Your task to perform on an android device: turn on data saver in the chrome app Image 0: 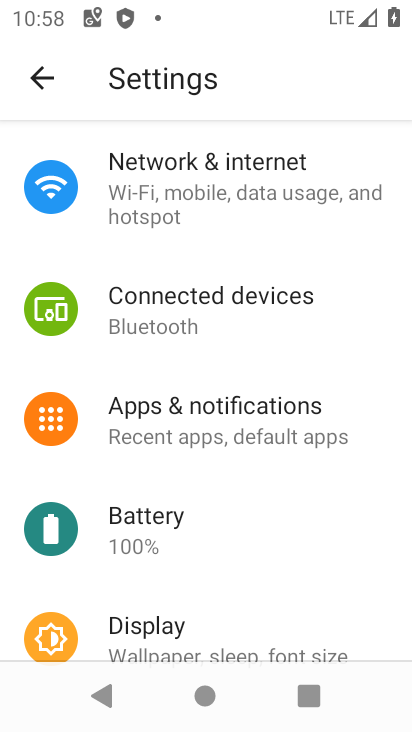
Step 0: press back button
Your task to perform on an android device: turn on data saver in the chrome app Image 1: 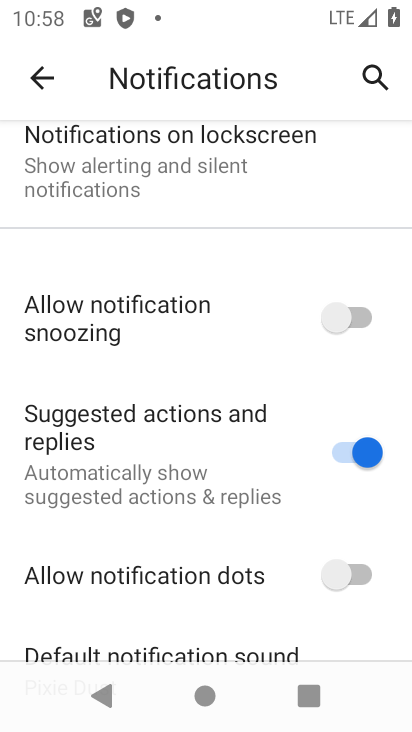
Step 1: press back button
Your task to perform on an android device: turn on data saver in the chrome app Image 2: 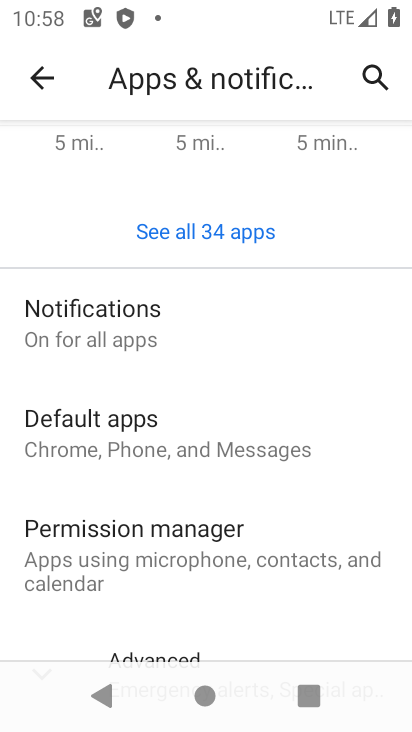
Step 2: press back button
Your task to perform on an android device: turn on data saver in the chrome app Image 3: 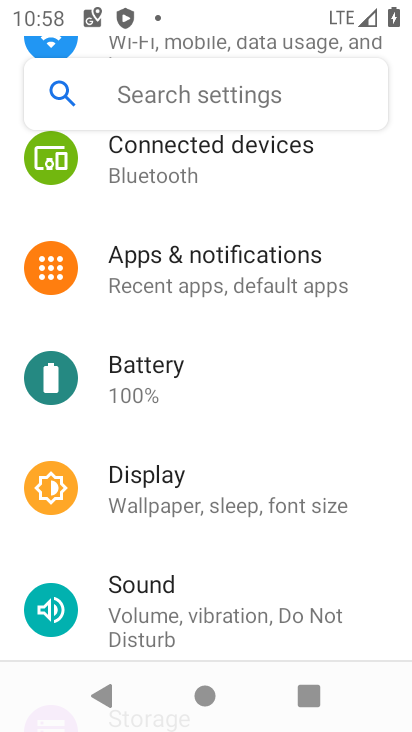
Step 3: press back button
Your task to perform on an android device: turn on data saver in the chrome app Image 4: 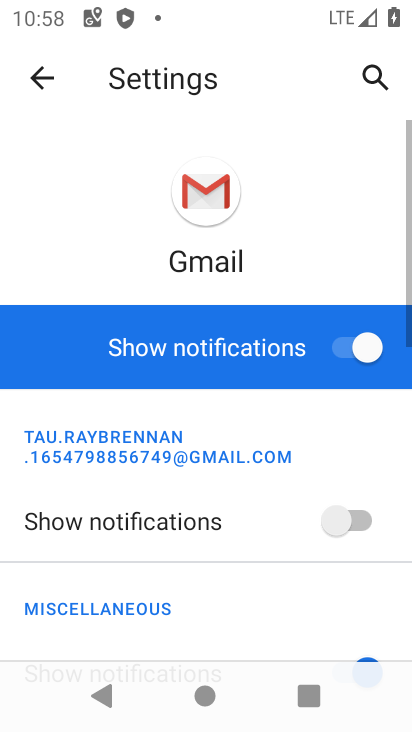
Step 4: press back button
Your task to perform on an android device: turn on data saver in the chrome app Image 5: 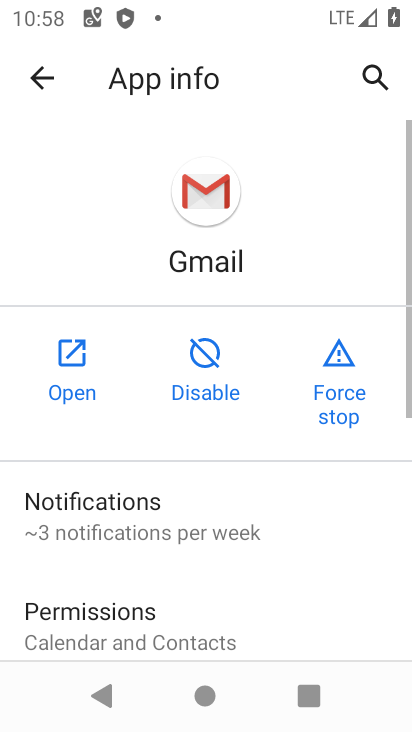
Step 5: press back button
Your task to perform on an android device: turn on data saver in the chrome app Image 6: 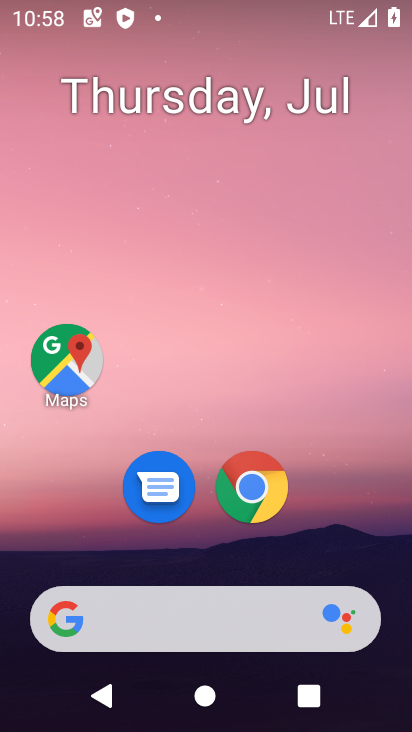
Step 6: click (263, 499)
Your task to perform on an android device: turn on data saver in the chrome app Image 7: 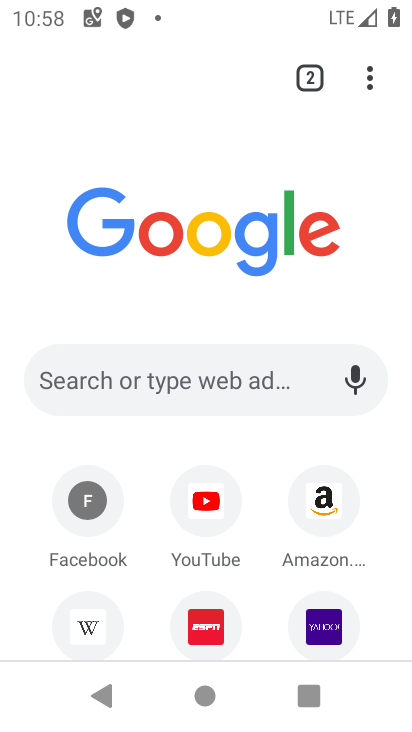
Step 7: click (373, 85)
Your task to perform on an android device: turn on data saver in the chrome app Image 8: 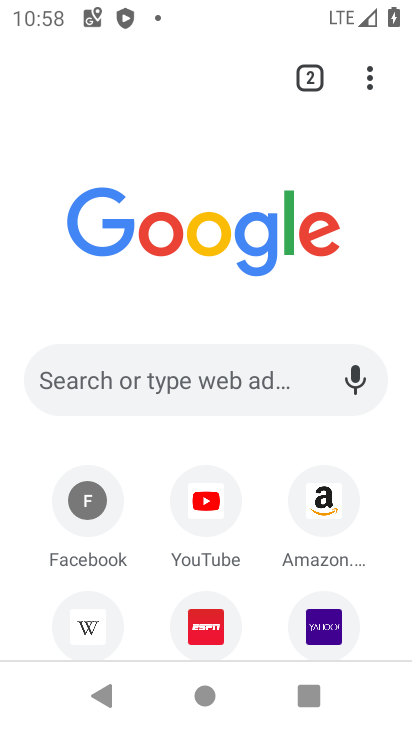
Step 8: drag from (366, 73) to (126, 557)
Your task to perform on an android device: turn on data saver in the chrome app Image 9: 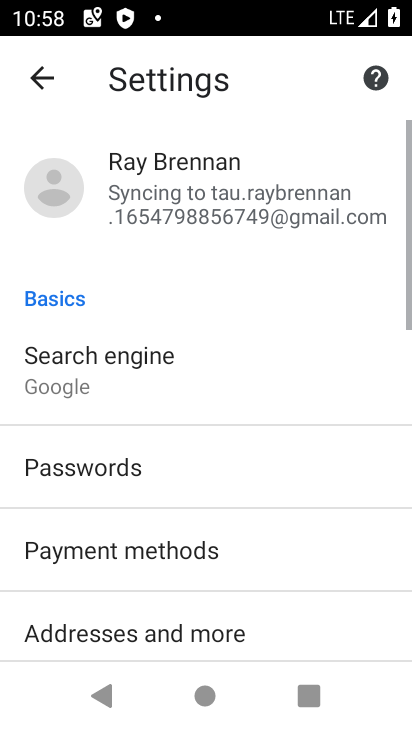
Step 9: drag from (148, 645) to (242, 140)
Your task to perform on an android device: turn on data saver in the chrome app Image 10: 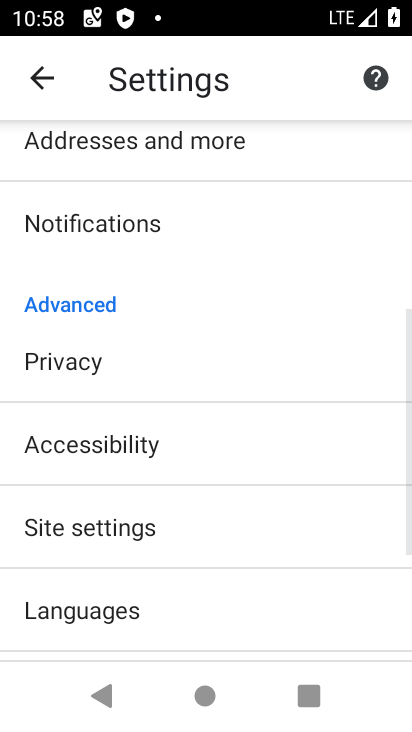
Step 10: drag from (164, 639) to (272, 95)
Your task to perform on an android device: turn on data saver in the chrome app Image 11: 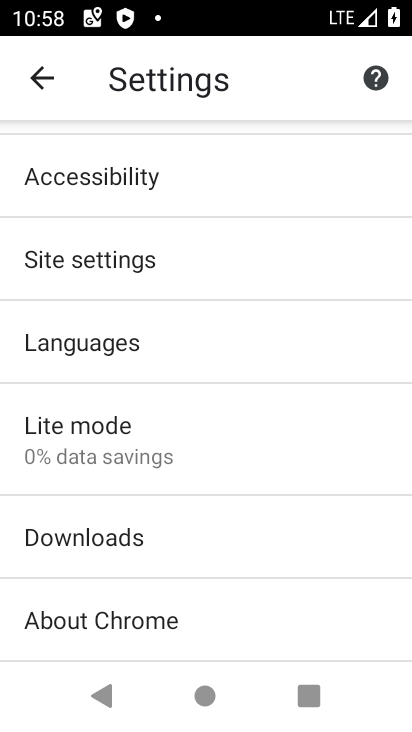
Step 11: click (94, 429)
Your task to perform on an android device: turn on data saver in the chrome app Image 12: 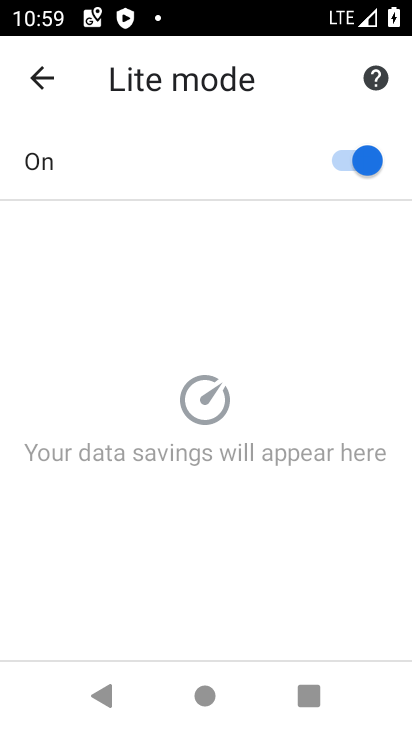
Step 12: task complete